Your task to perform on an android device: install app "Pluto TV - Live TV and Movies" Image 0: 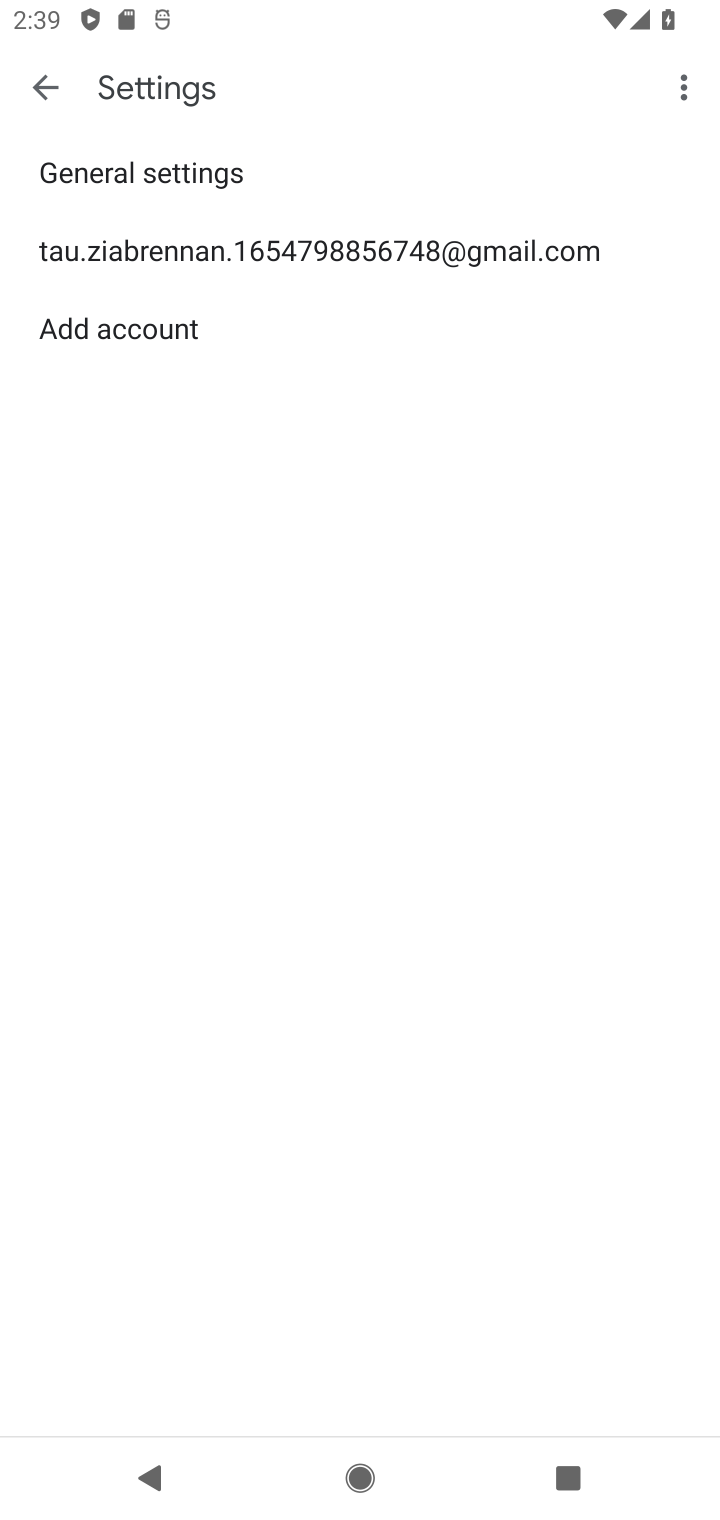
Step 0: press home button
Your task to perform on an android device: install app "Pluto TV - Live TV and Movies" Image 1: 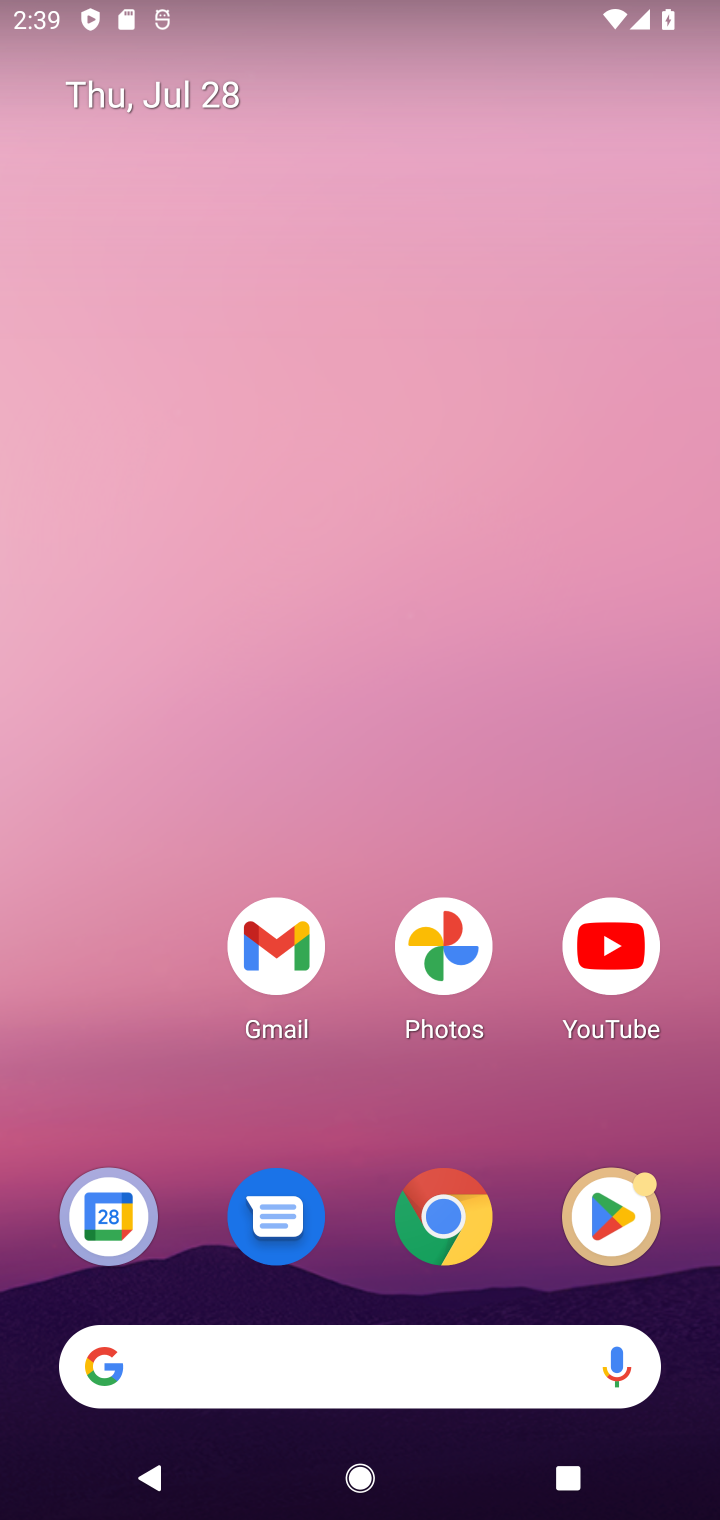
Step 1: drag from (151, 1003) to (220, 116)
Your task to perform on an android device: install app "Pluto TV - Live TV and Movies" Image 2: 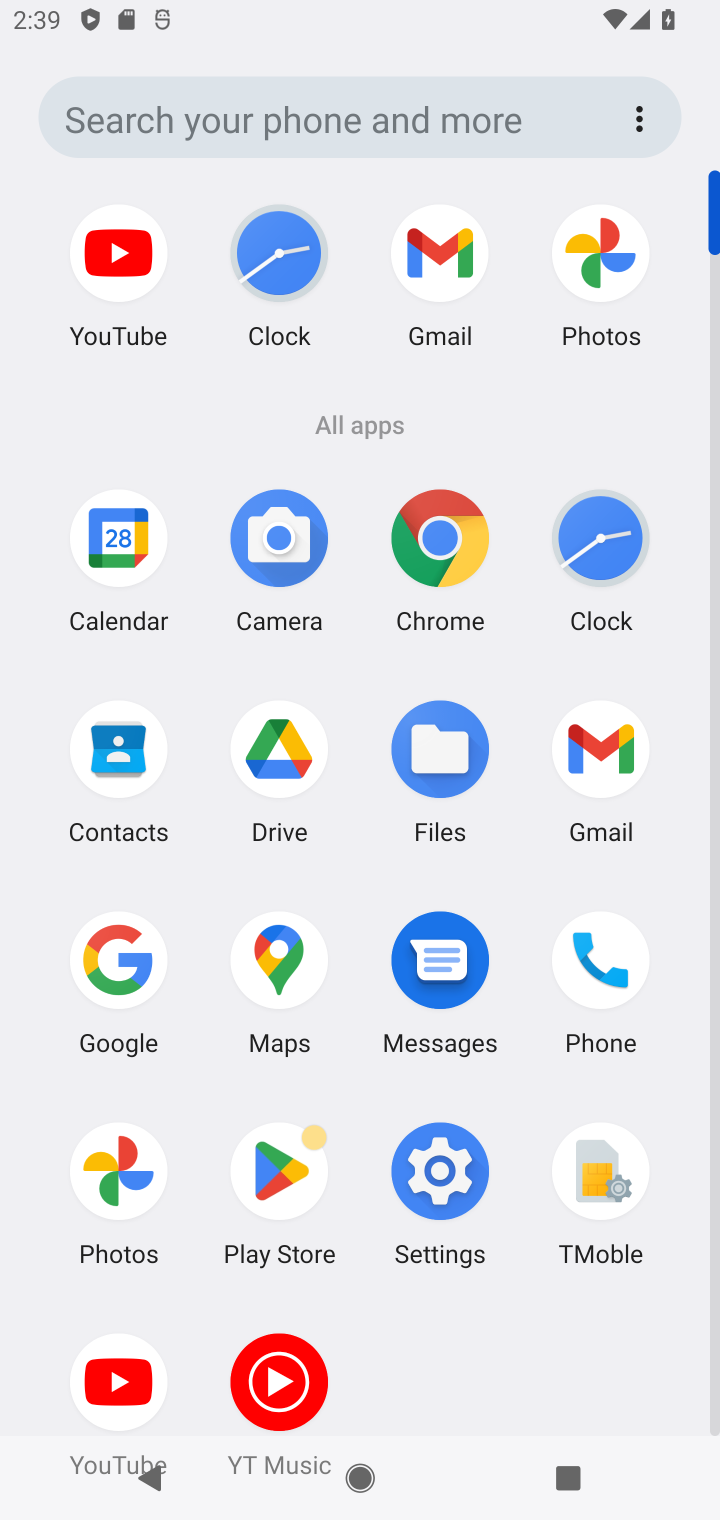
Step 2: click (294, 1156)
Your task to perform on an android device: install app "Pluto TV - Live TV and Movies" Image 3: 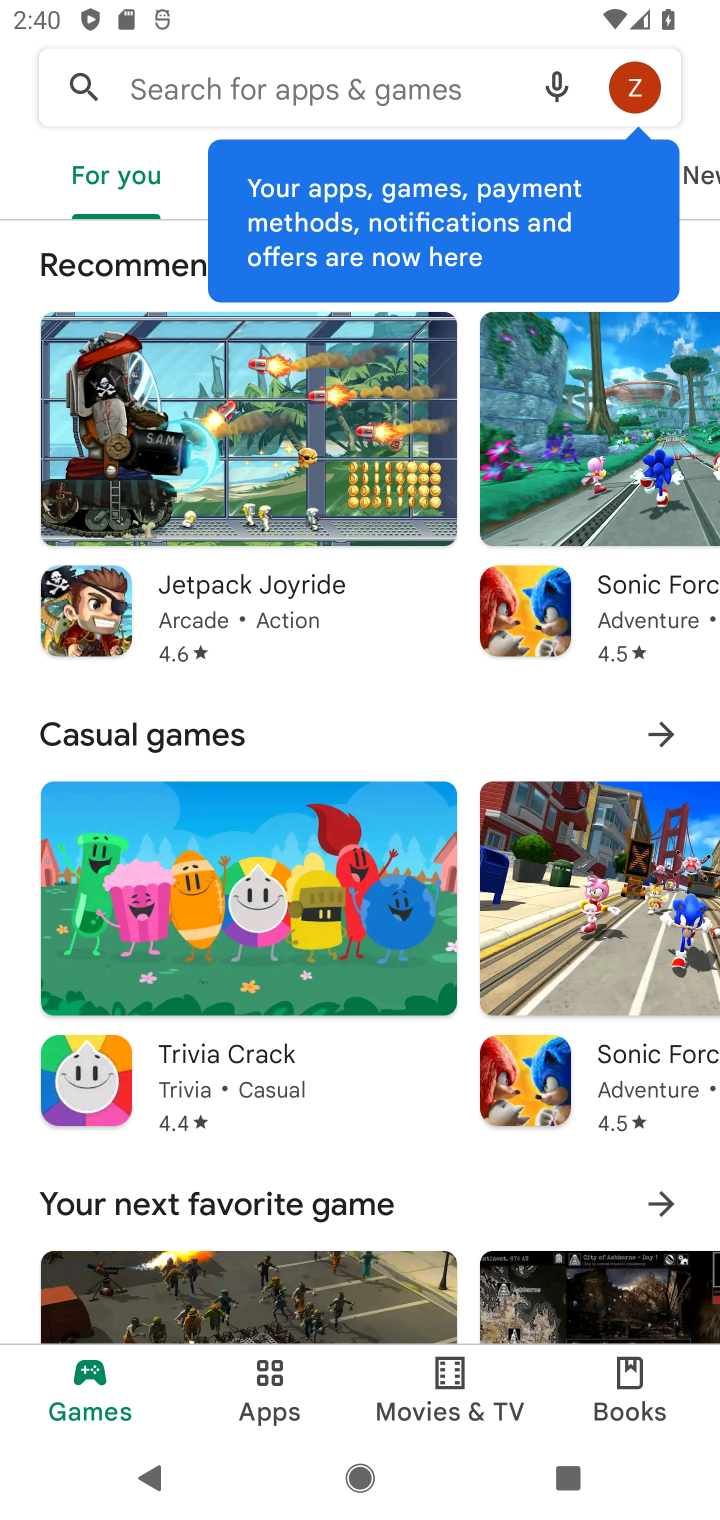
Step 3: click (421, 73)
Your task to perform on an android device: install app "Pluto TV - Live TV and Movies" Image 4: 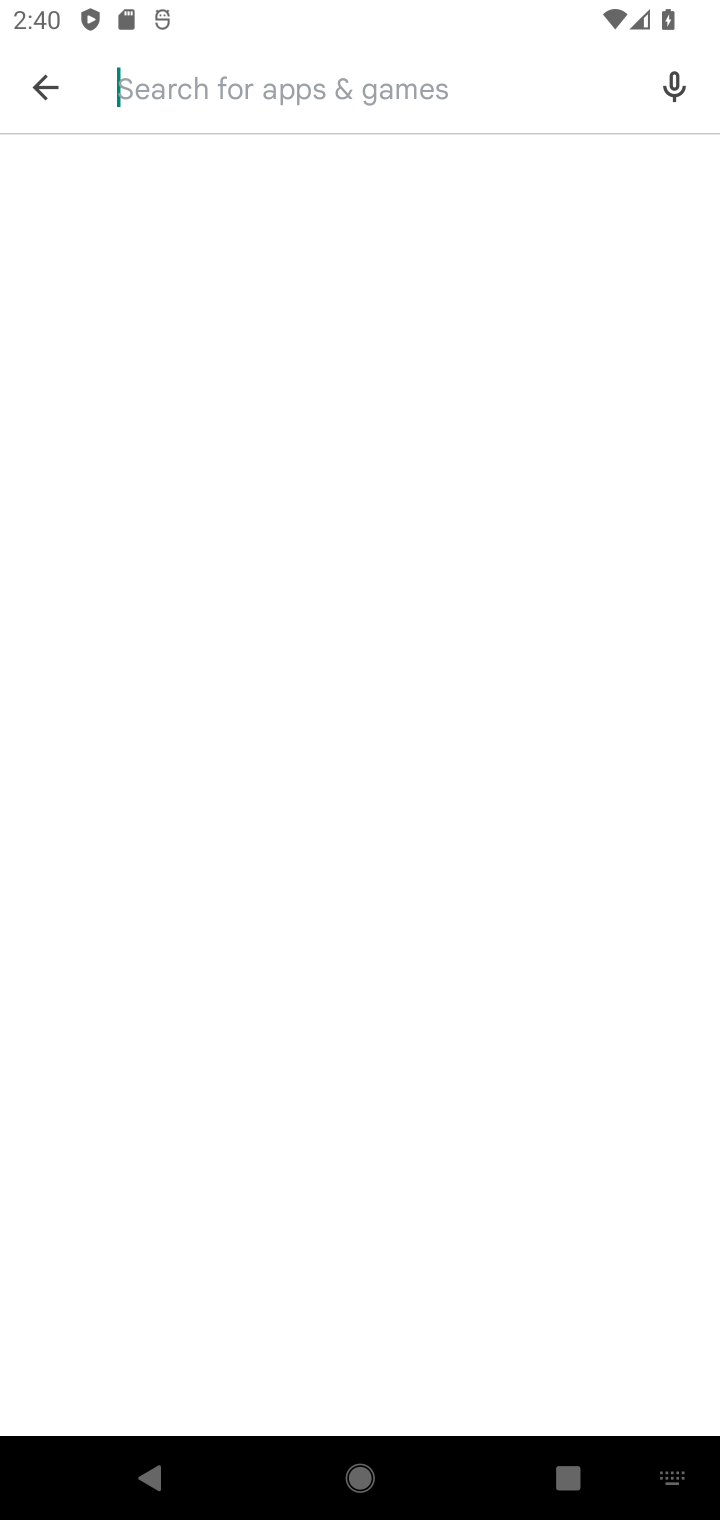
Step 4: type "Pluto TV - Live TV and Movies"
Your task to perform on an android device: install app "Pluto TV - Live TV and Movies" Image 5: 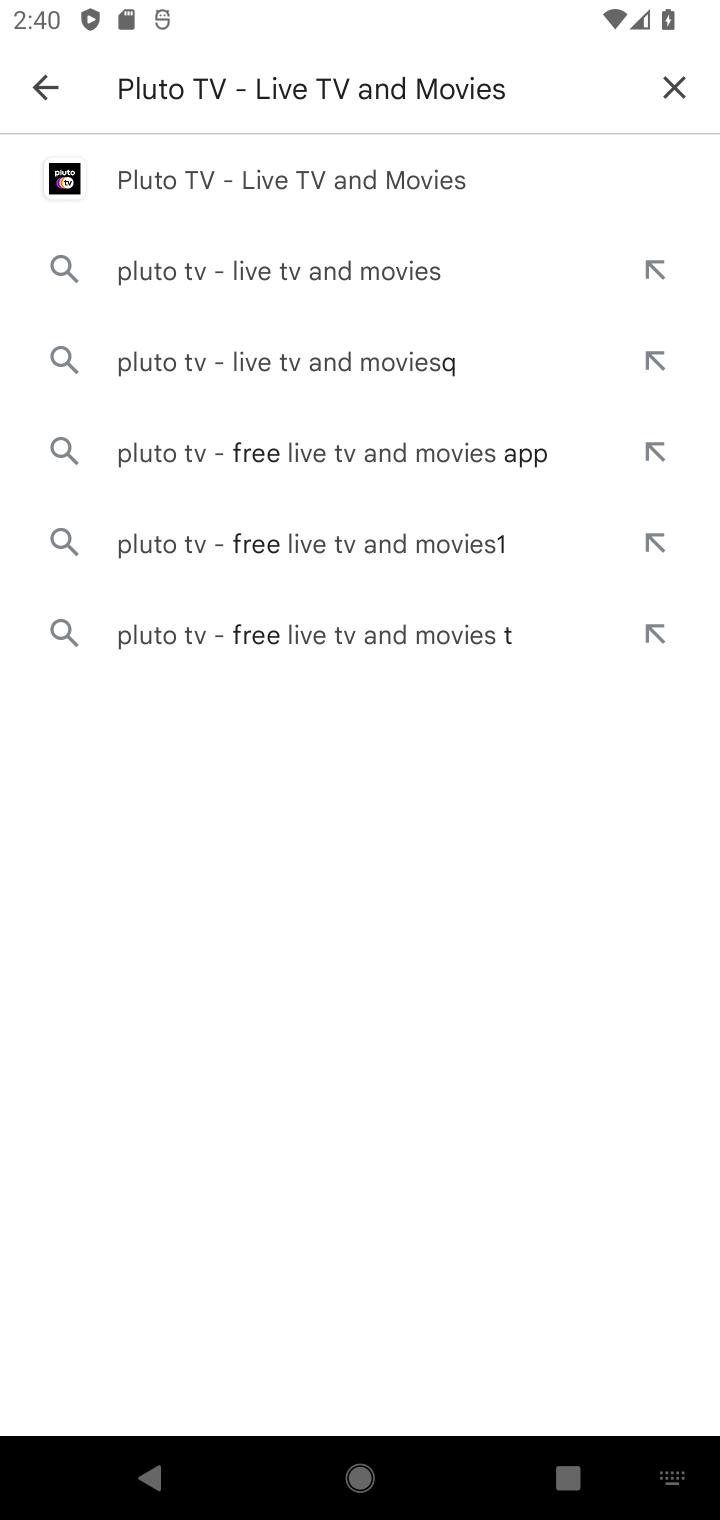
Step 5: click (322, 163)
Your task to perform on an android device: install app "Pluto TV - Live TV and Movies" Image 6: 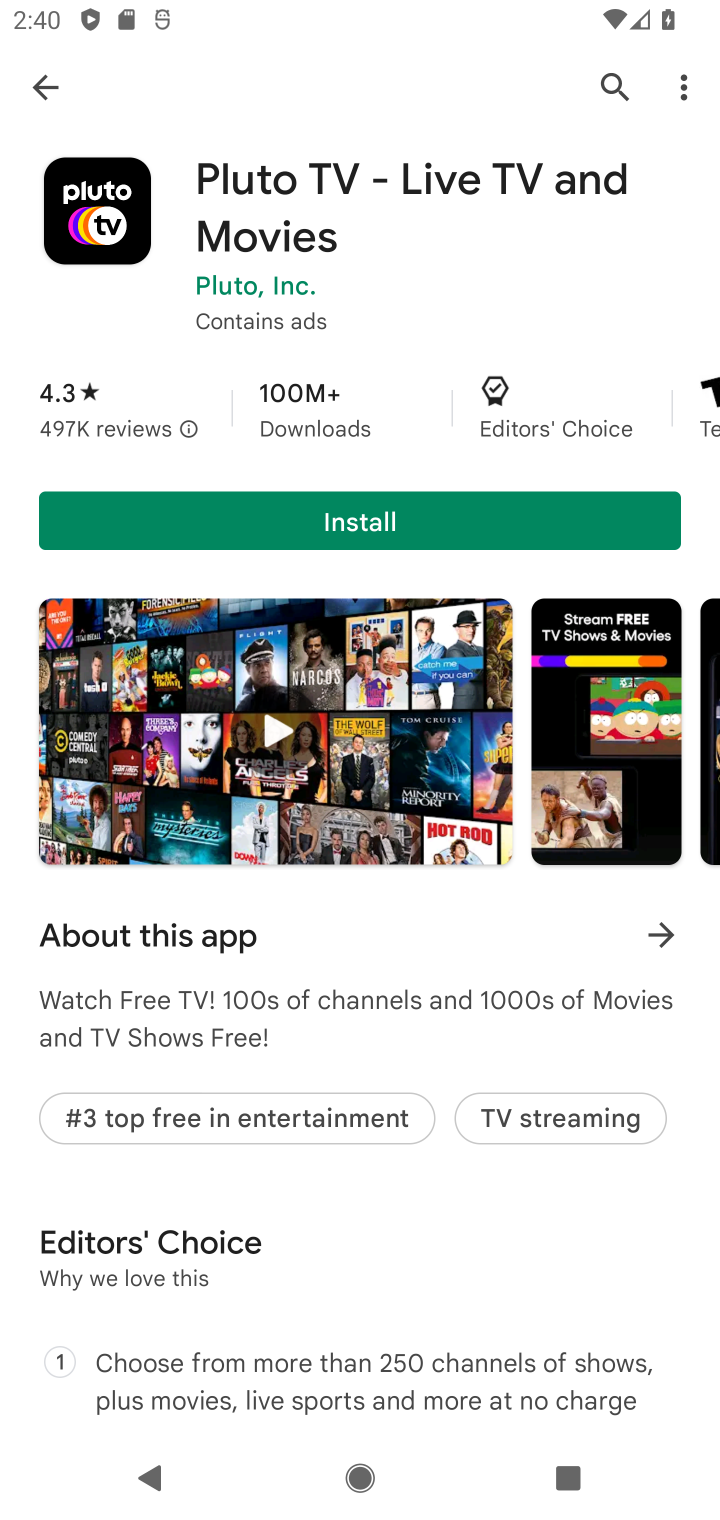
Step 6: click (410, 515)
Your task to perform on an android device: install app "Pluto TV - Live TV and Movies" Image 7: 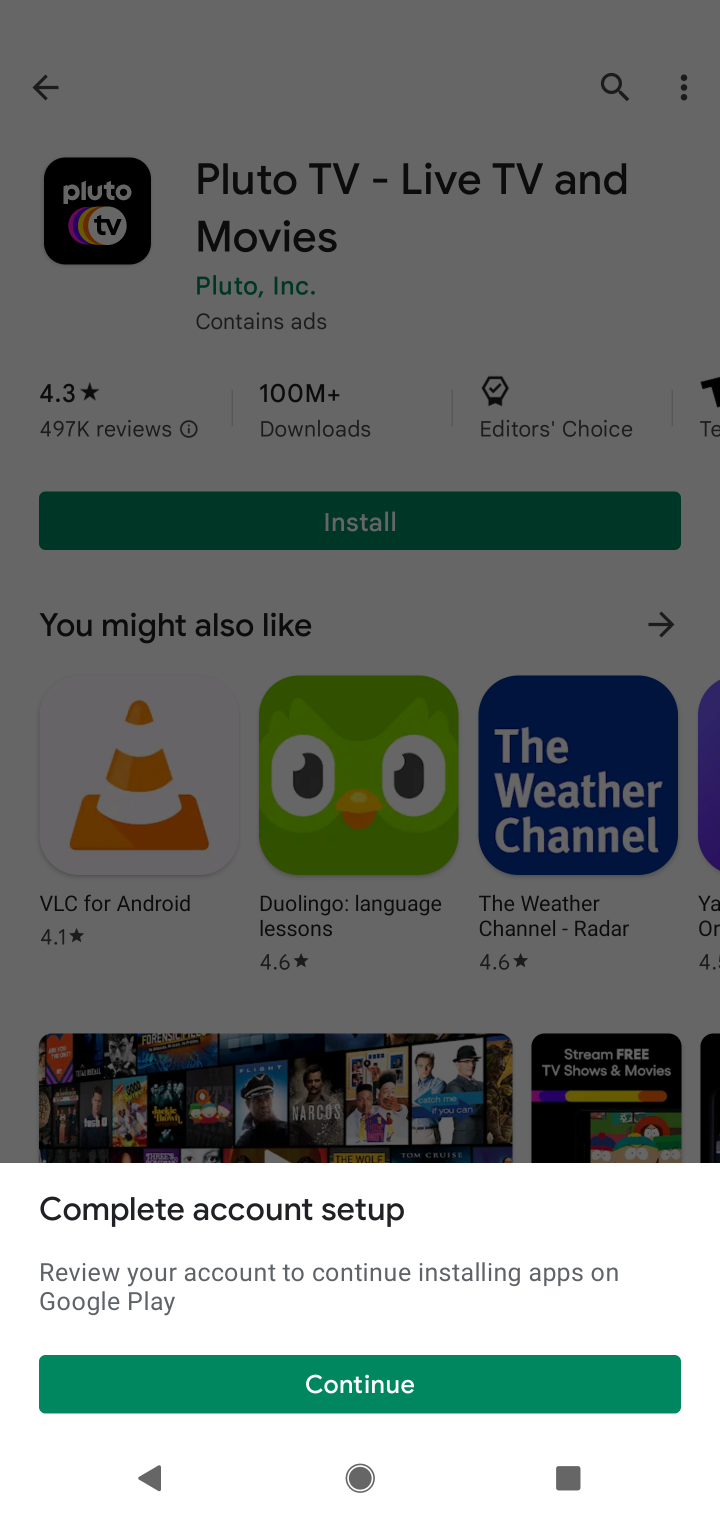
Step 7: click (515, 1398)
Your task to perform on an android device: install app "Pluto TV - Live TV and Movies" Image 8: 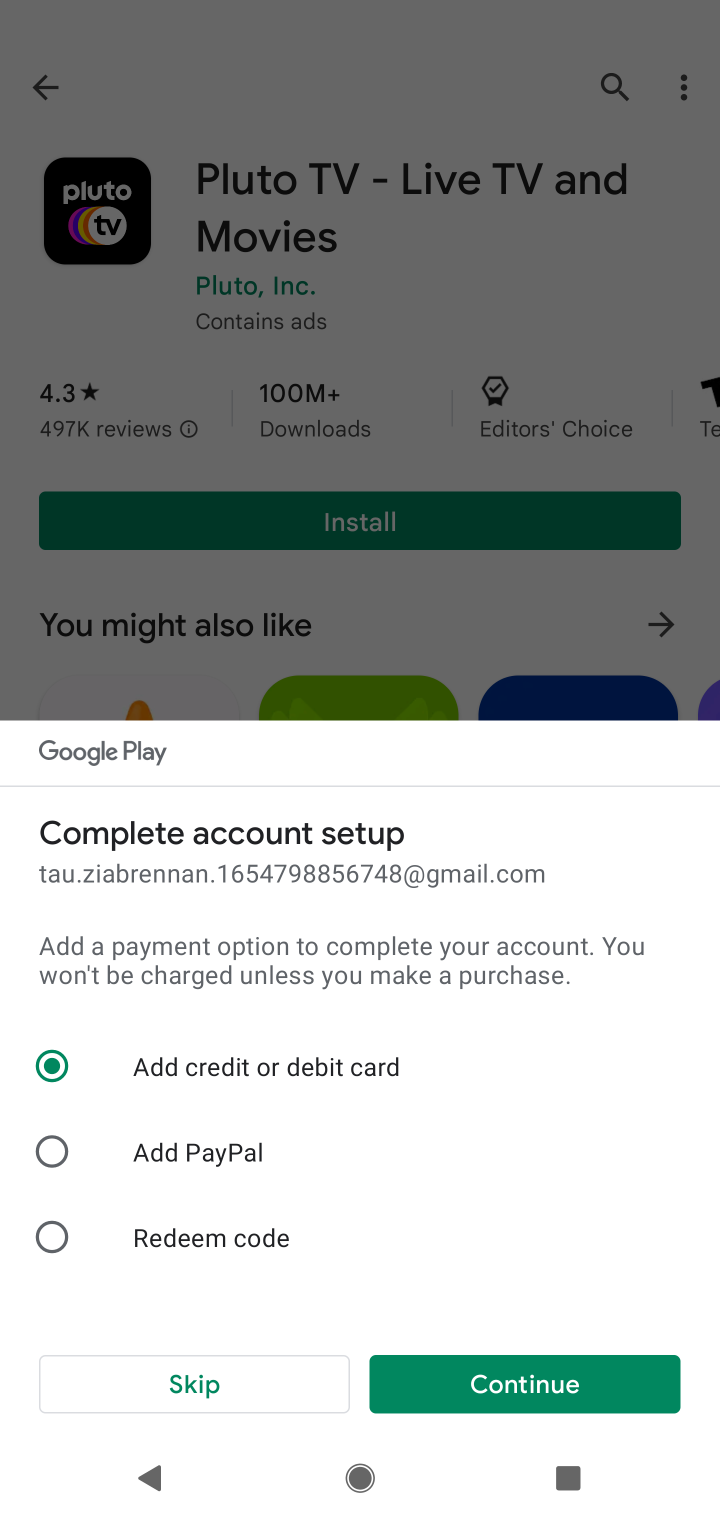
Step 8: click (287, 1373)
Your task to perform on an android device: install app "Pluto TV - Live TV and Movies" Image 9: 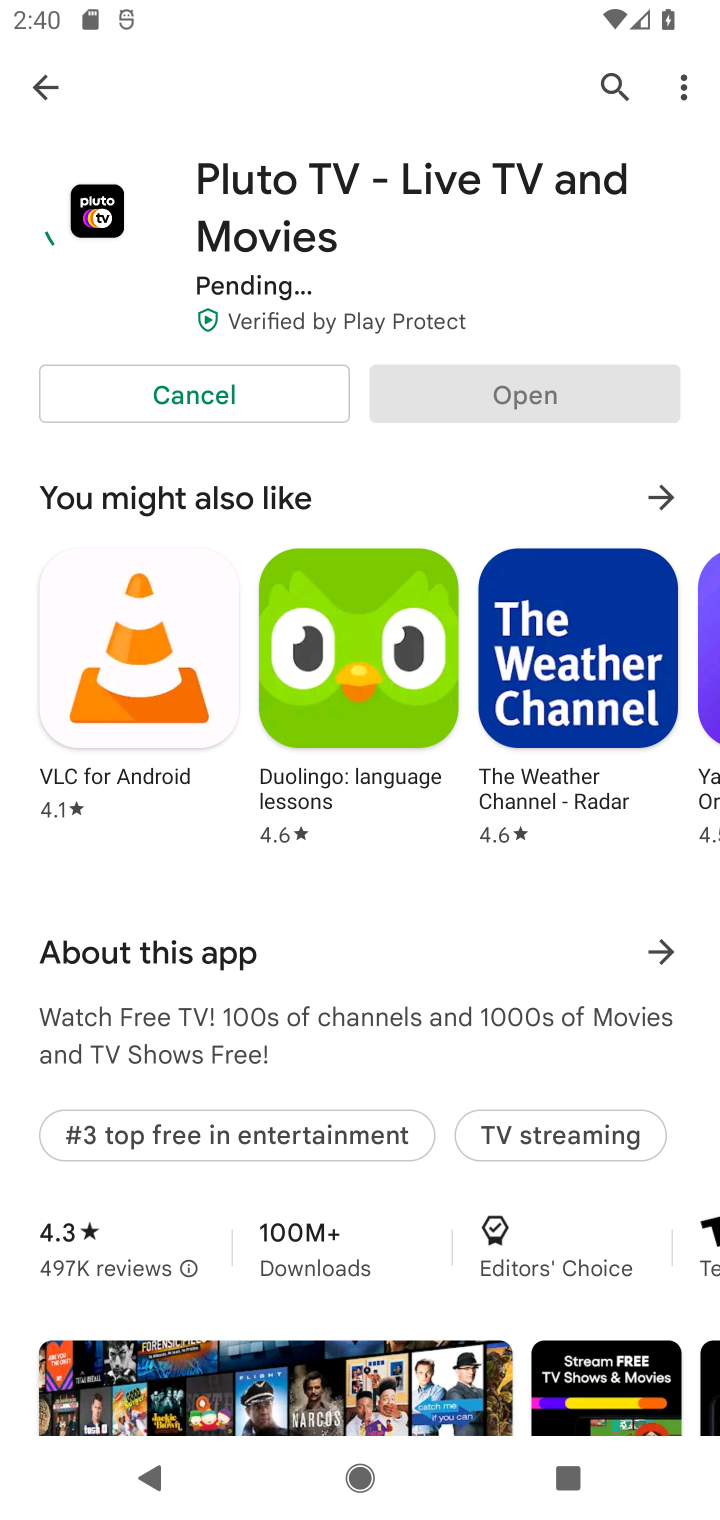
Step 9: click (581, 527)
Your task to perform on an android device: install app "Pluto TV - Live TV and Movies" Image 10: 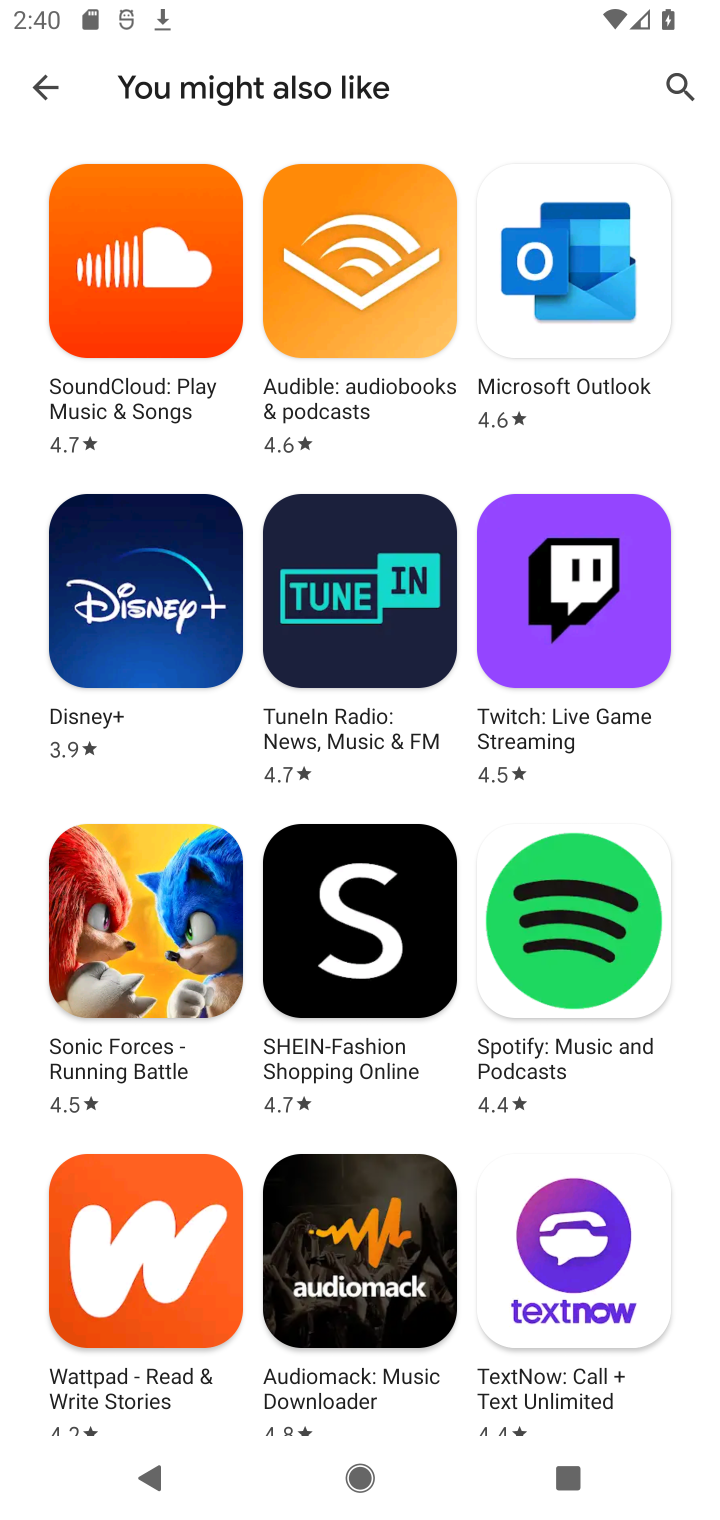
Step 10: click (49, 81)
Your task to perform on an android device: install app "Pluto TV - Live TV and Movies" Image 11: 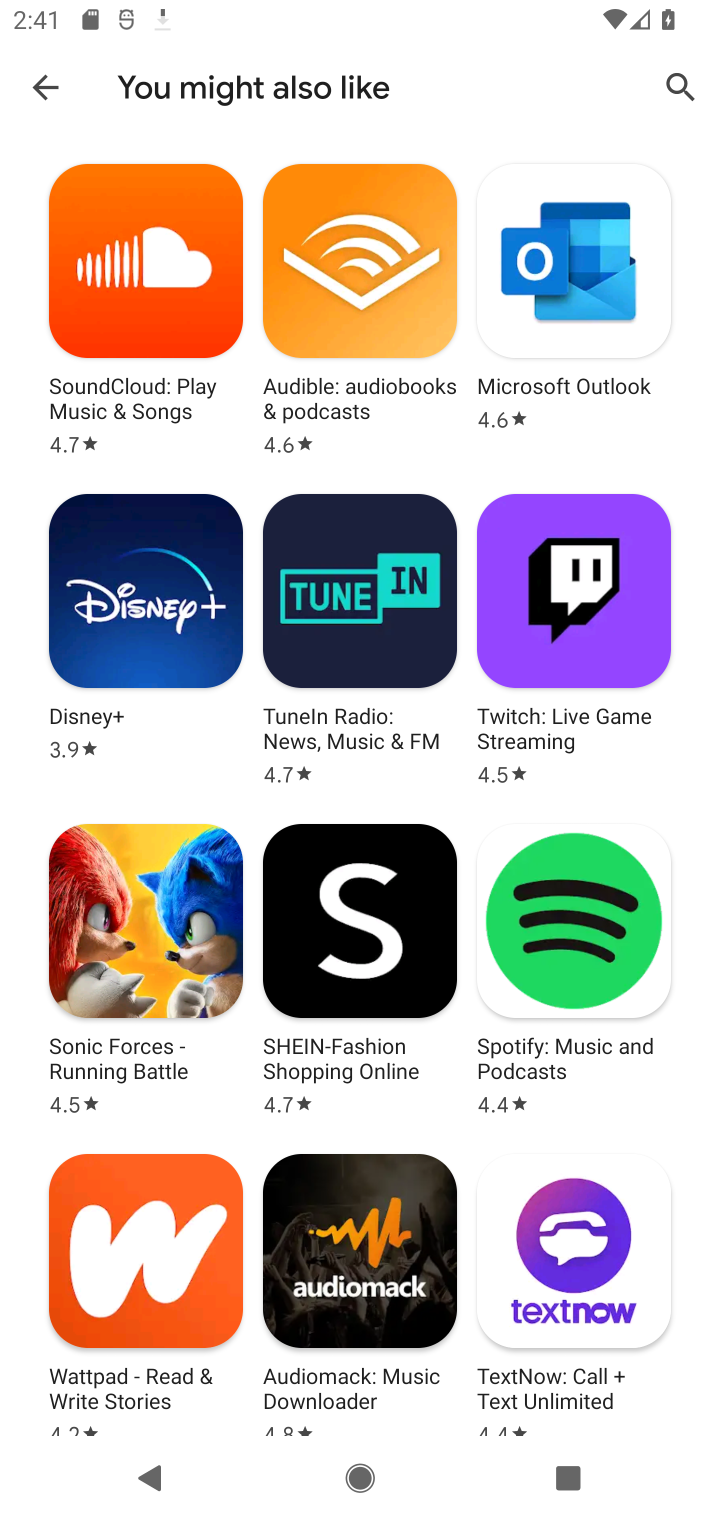
Step 11: click (43, 80)
Your task to perform on an android device: install app "Pluto TV - Live TV and Movies" Image 12: 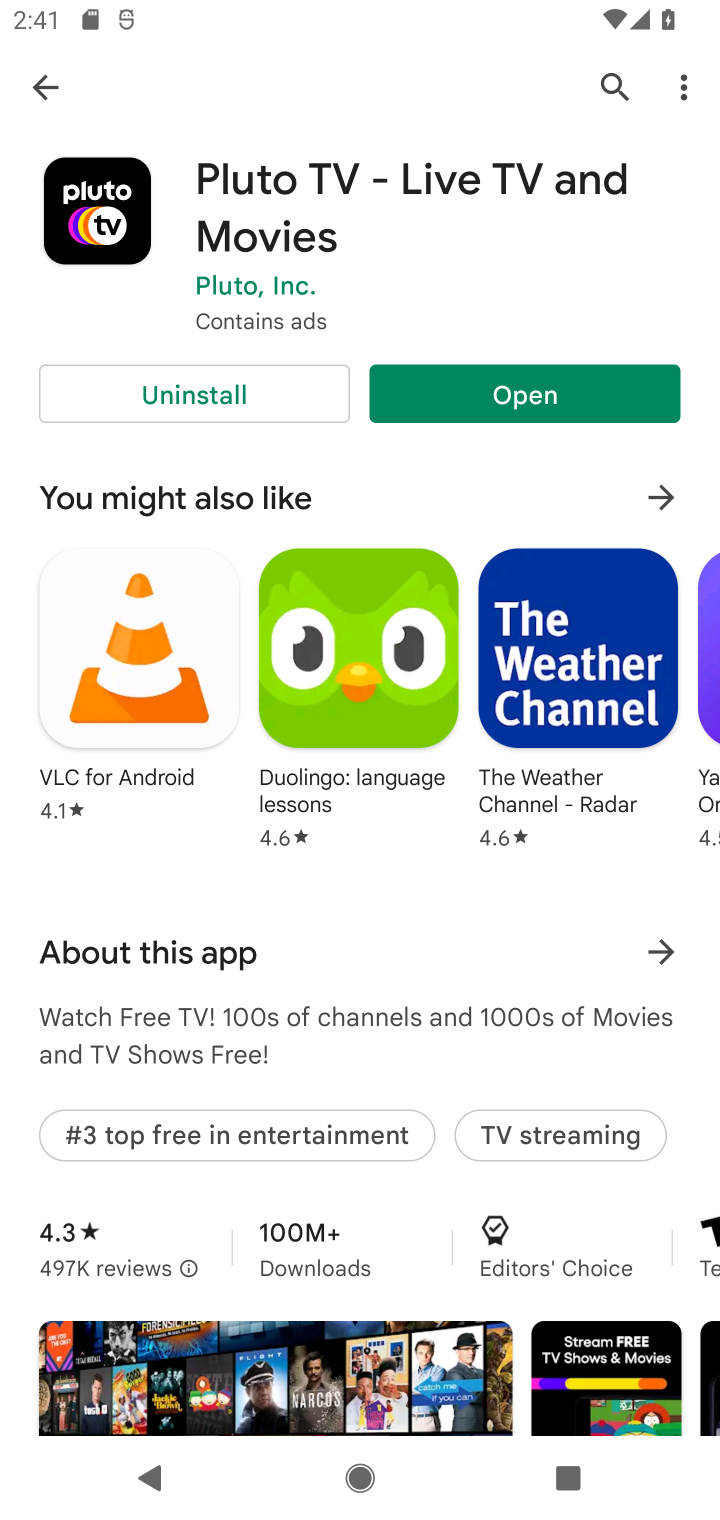
Step 12: click (561, 400)
Your task to perform on an android device: install app "Pluto TV - Live TV and Movies" Image 13: 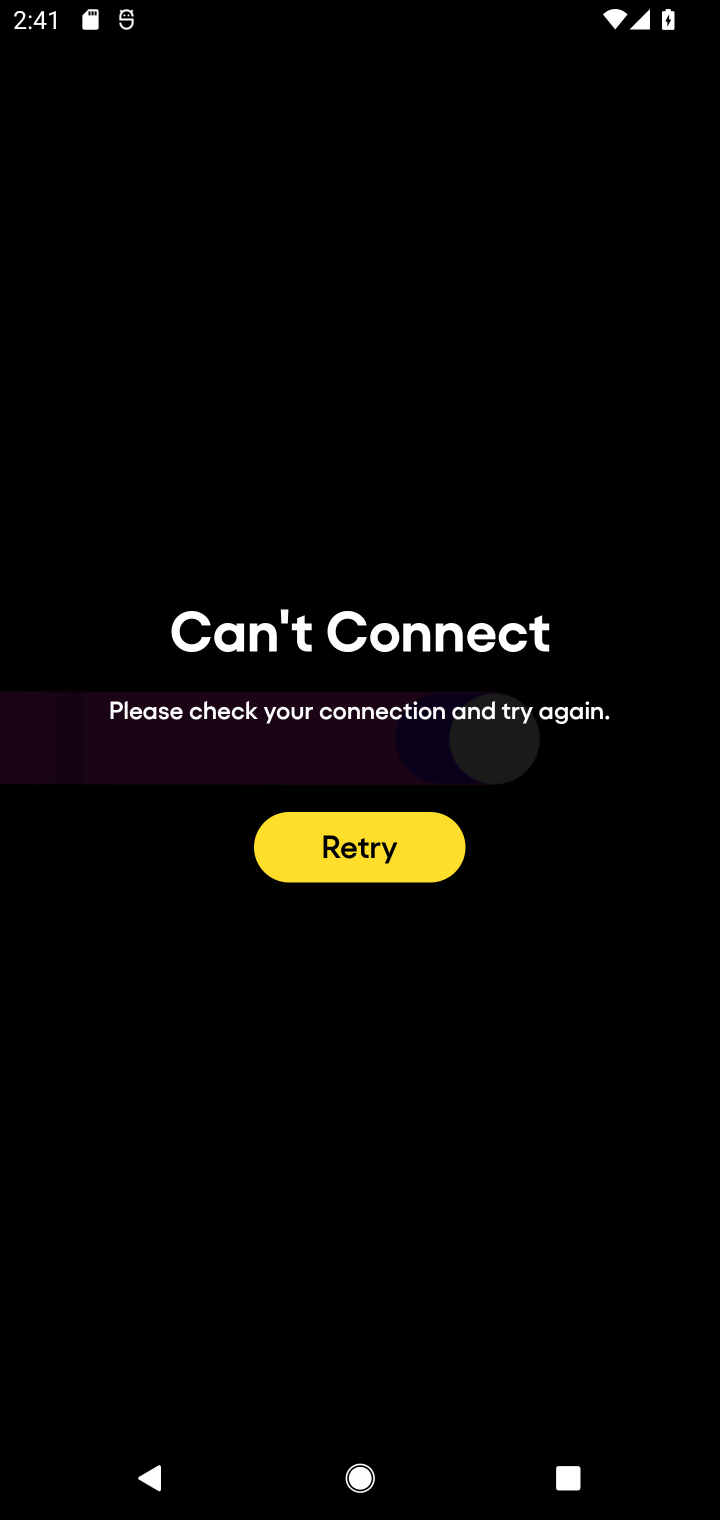
Step 13: task complete